Your task to perform on an android device: open chrome privacy settings Image 0: 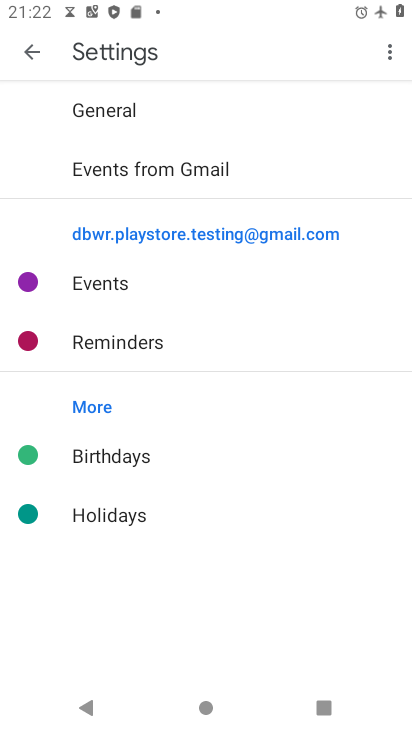
Step 0: press home button
Your task to perform on an android device: open chrome privacy settings Image 1: 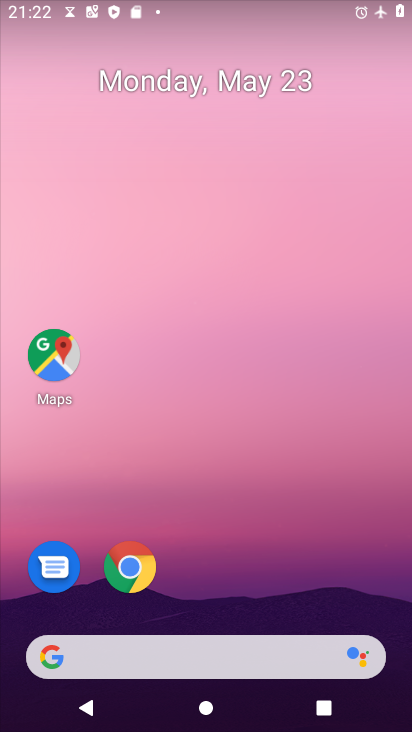
Step 1: click (125, 575)
Your task to perform on an android device: open chrome privacy settings Image 2: 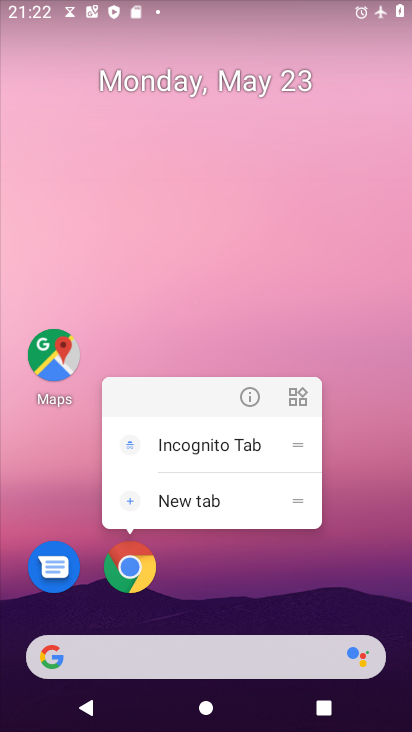
Step 2: click (258, 283)
Your task to perform on an android device: open chrome privacy settings Image 3: 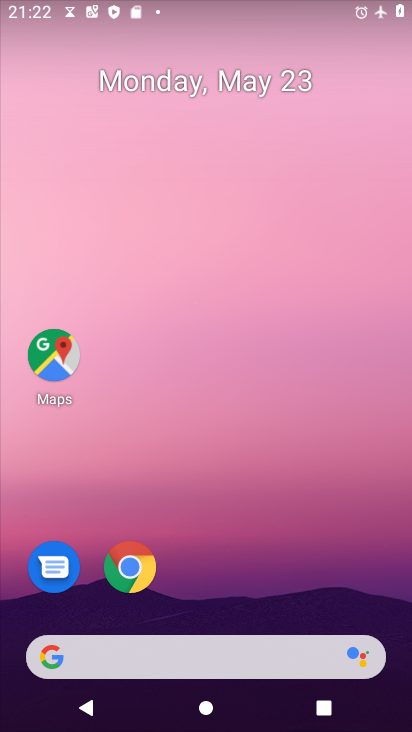
Step 3: click (132, 562)
Your task to perform on an android device: open chrome privacy settings Image 4: 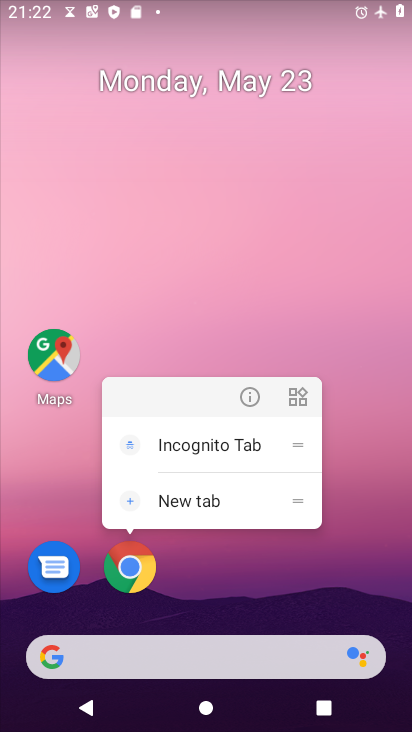
Step 4: click (132, 562)
Your task to perform on an android device: open chrome privacy settings Image 5: 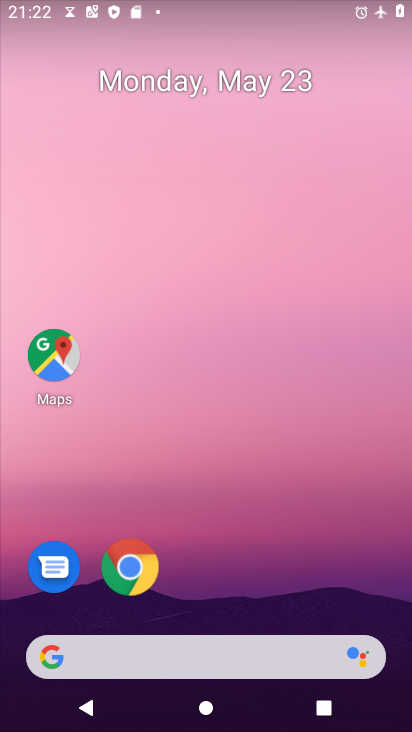
Step 5: click (132, 562)
Your task to perform on an android device: open chrome privacy settings Image 6: 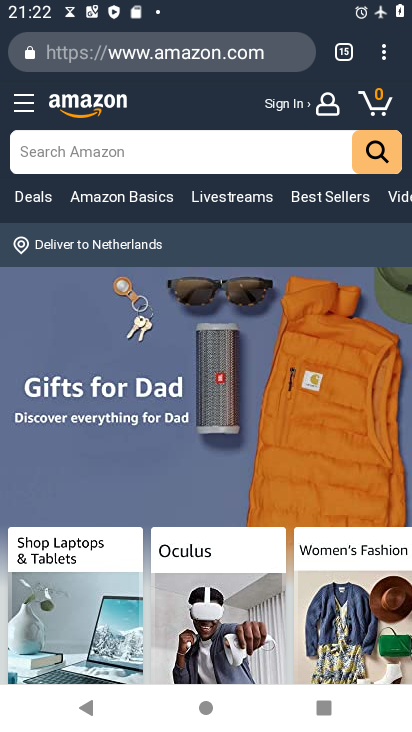
Step 6: click (392, 57)
Your task to perform on an android device: open chrome privacy settings Image 7: 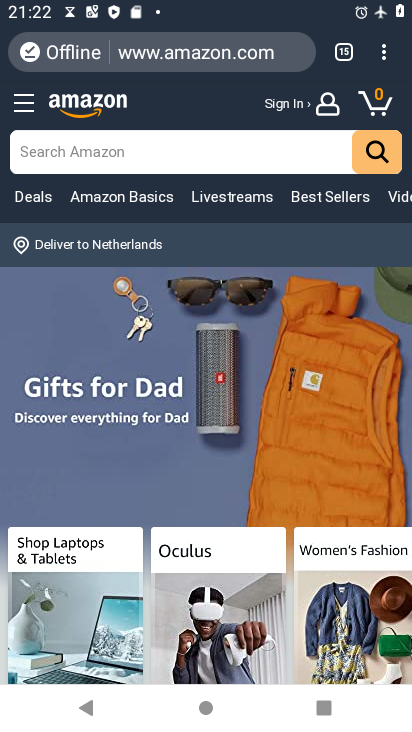
Step 7: click (381, 44)
Your task to perform on an android device: open chrome privacy settings Image 8: 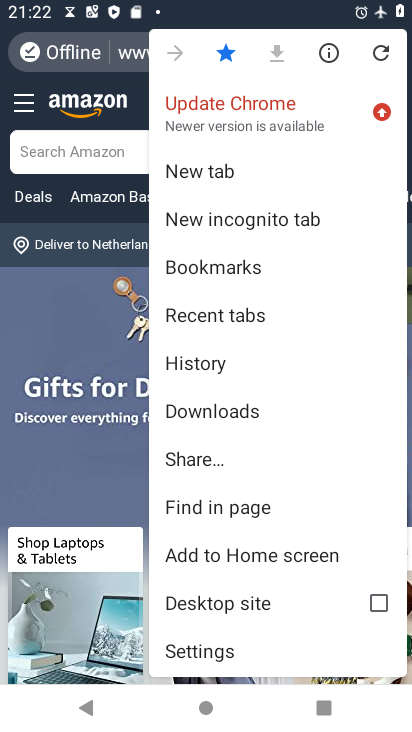
Step 8: click (220, 641)
Your task to perform on an android device: open chrome privacy settings Image 9: 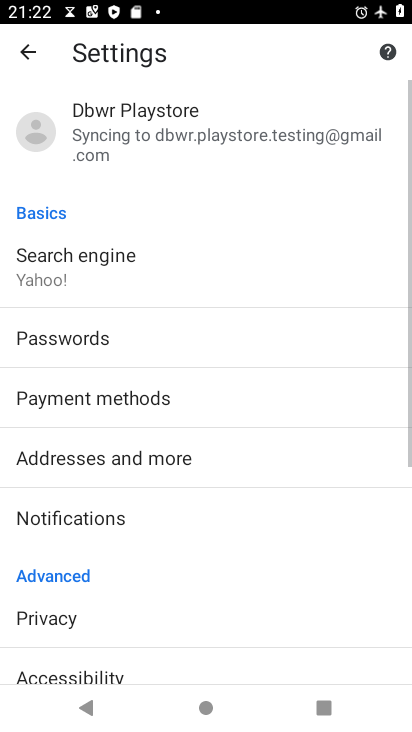
Step 9: click (68, 623)
Your task to perform on an android device: open chrome privacy settings Image 10: 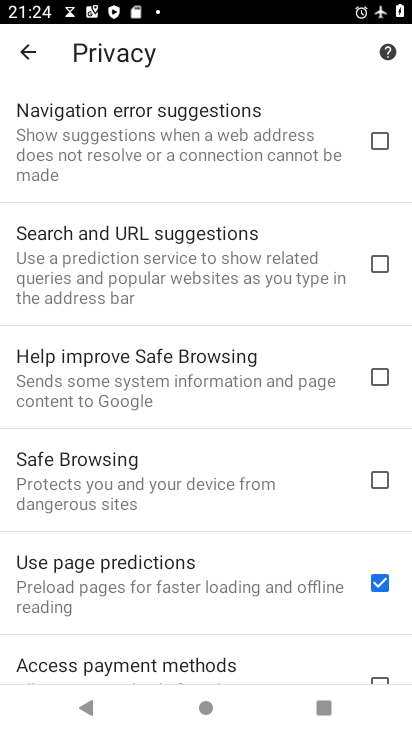
Step 10: task complete